Your task to perform on an android device: Open my contact list Image 0: 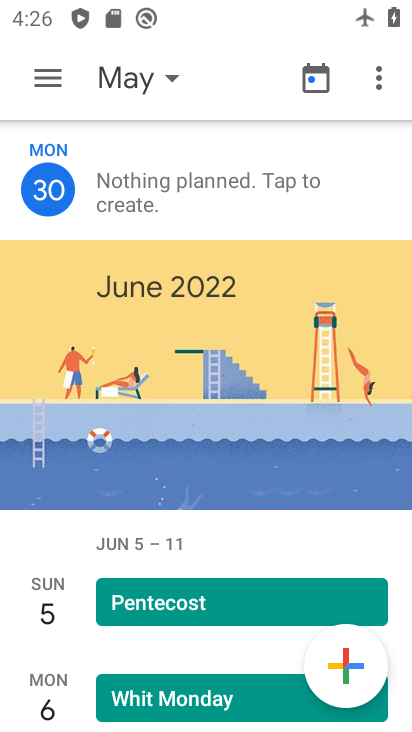
Step 0: press back button
Your task to perform on an android device: Open my contact list Image 1: 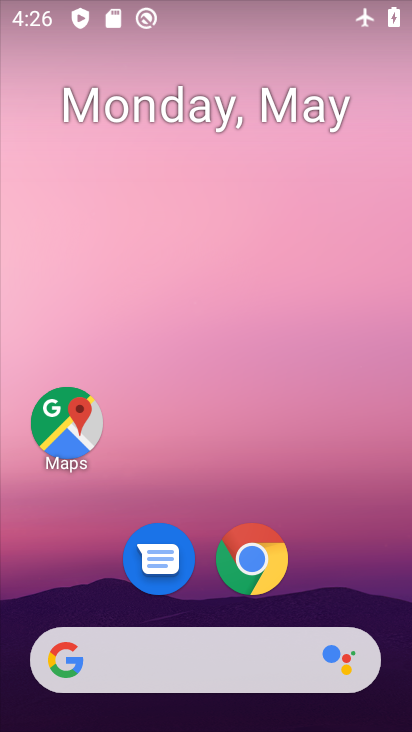
Step 1: drag from (357, 562) to (236, 32)
Your task to perform on an android device: Open my contact list Image 2: 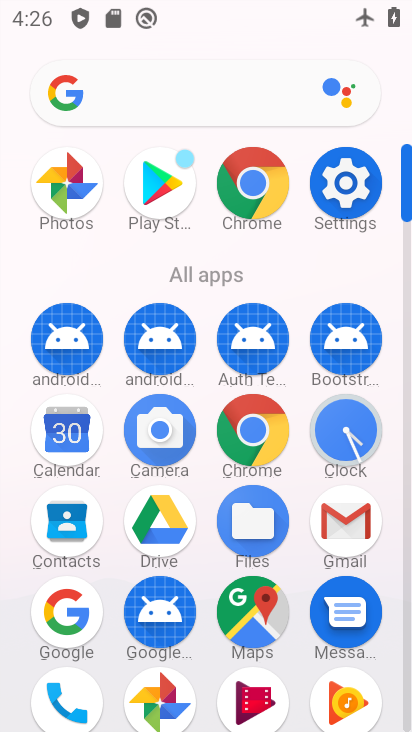
Step 2: drag from (0, 618) to (17, 301)
Your task to perform on an android device: Open my contact list Image 3: 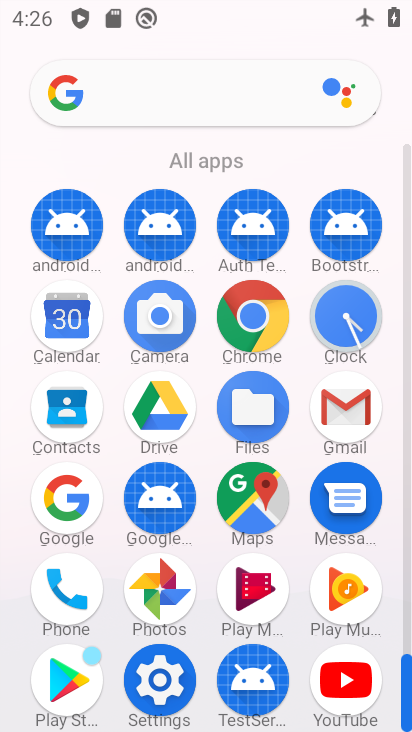
Step 3: click (68, 399)
Your task to perform on an android device: Open my contact list Image 4: 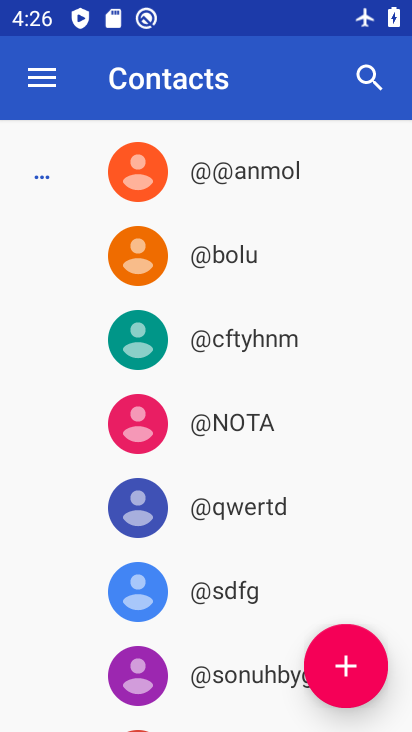
Step 4: task complete